Your task to perform on an android device: Go to Android settings Image 0: 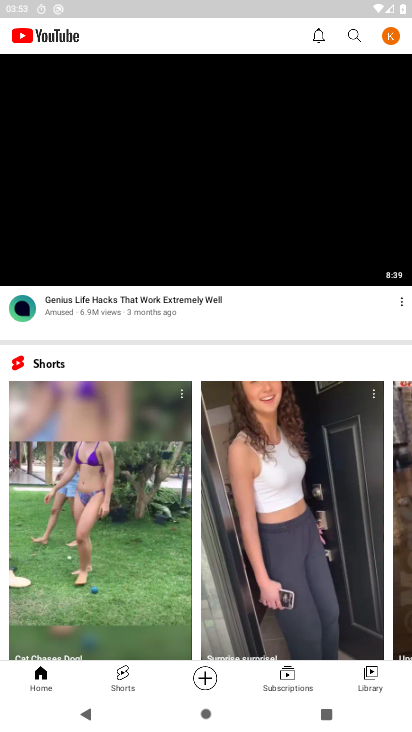
Step 0: drag from (232, 602) to (320, 234)
Your task to perform on an android device: Go to Android settings Image 1: 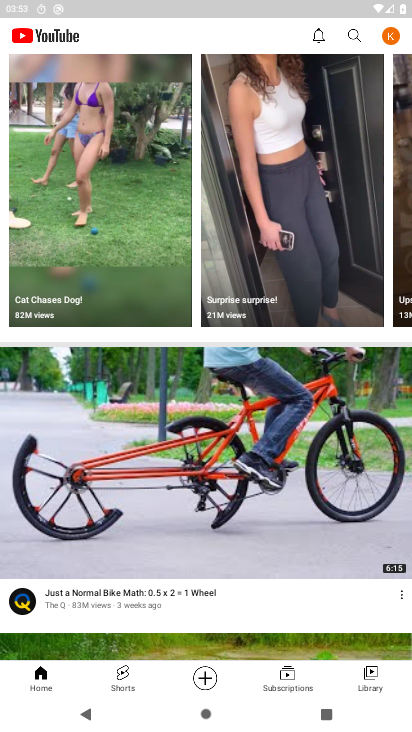
Step 1: press home button
Your task to perform on an android device: Go to Android settings Image 2: 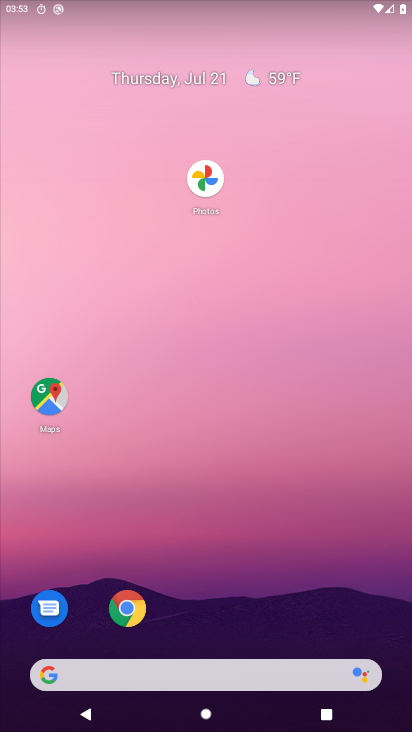
Step 2: drag from (189, 623) to (167, 111)
Your task to perform on an android device: Go to Android settings Image 3: 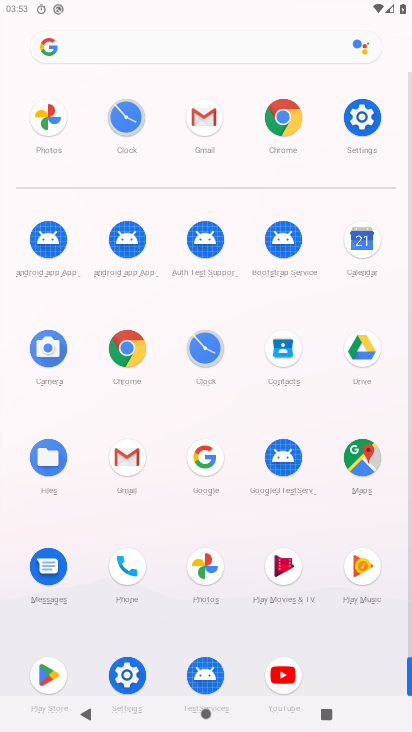
Step 3: click (363, 113)
Your task to perform on an android device: Go to Android settings Image 4: 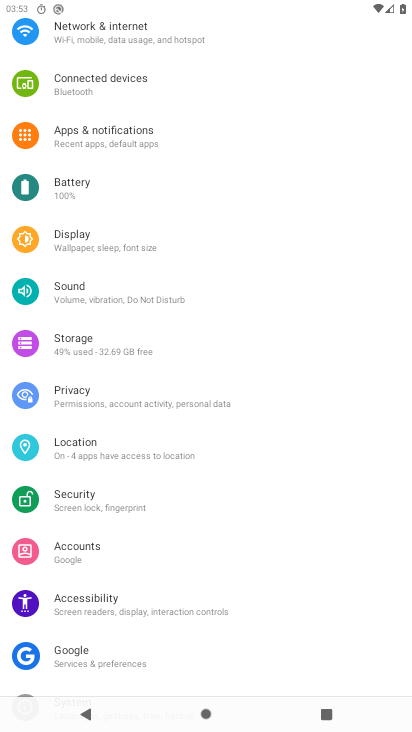
Step 4: drag from (162, 586) to (173, 228)
Your task to perform on an android device: Go to Android settings Image 5: 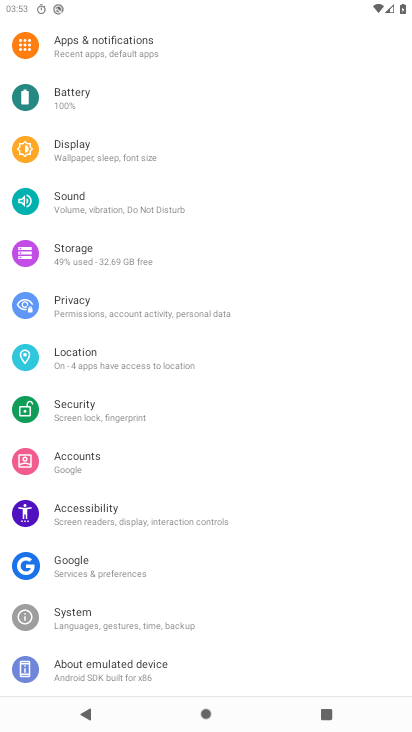
Step 5: click (166, 673)
Your task to perform on an android device: Go to Android settings Image 6: 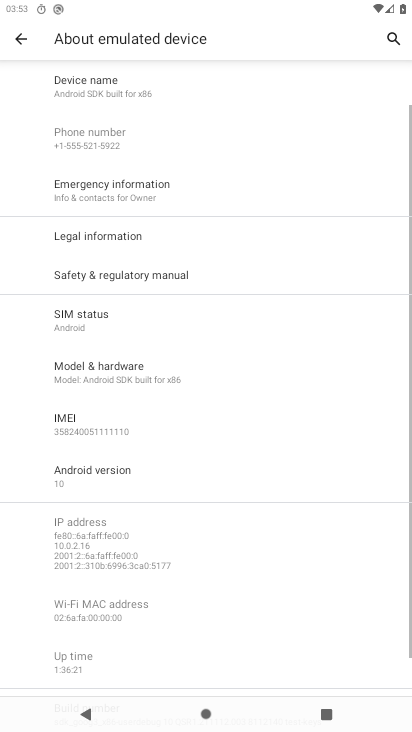
Step 6: click (116, 479)
Your task to perform on an android device: Go to Android settings Image 7: 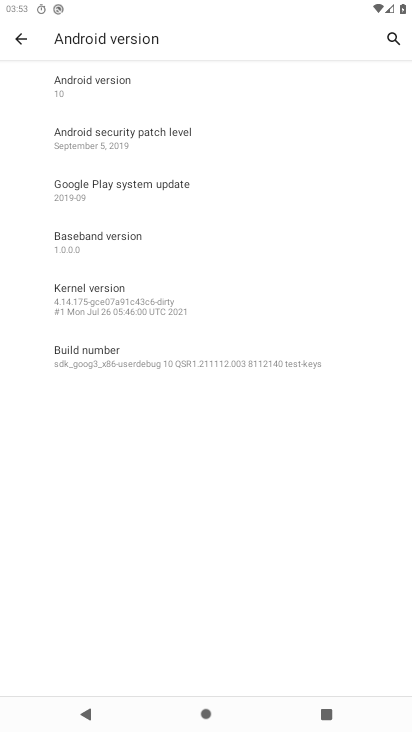
Step 7: task complete